Your task to perform on an android device: Open my contact list Image 0: 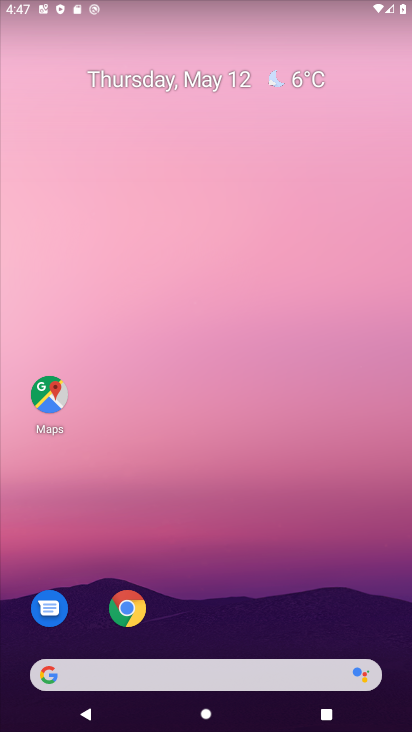
Step 0: drag from (298, 594) to (330, 97)
Your task to perform on an android device: Open my contact list Image 1: 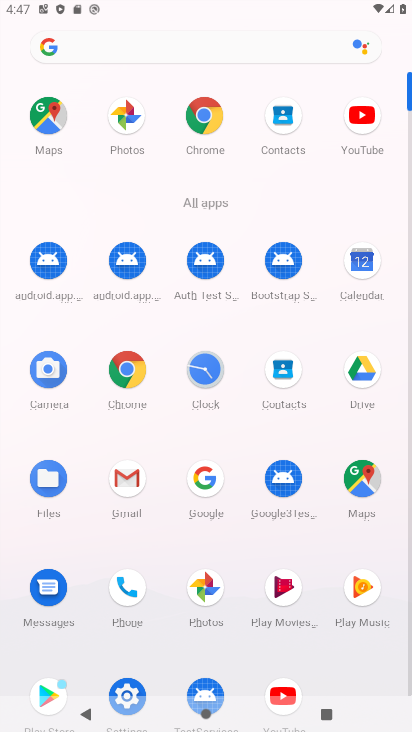
Step 1: click (282, 365)
Your task to perform on an android device: Open my contact list Image 2: 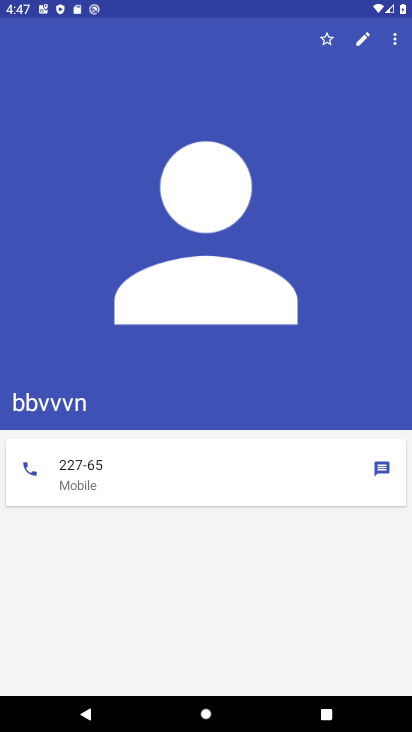
Step 2: task complete